Your task to perform on an android device: toggle notification dots Image 0: 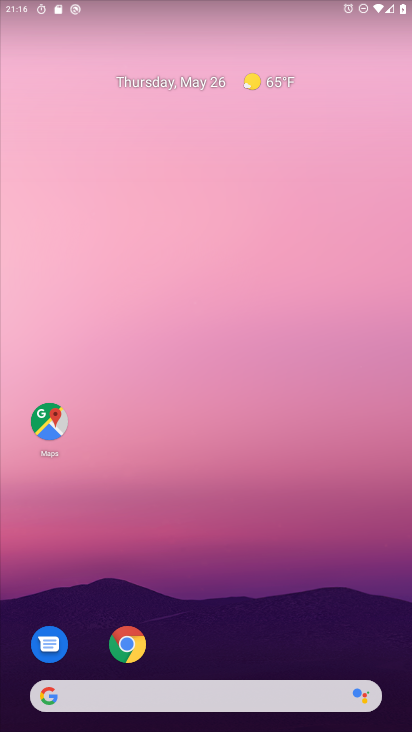
Step 0: drag from (195, 643) to (242, 51)
Your task to perform on an android device: toggle notification dots Image 1: 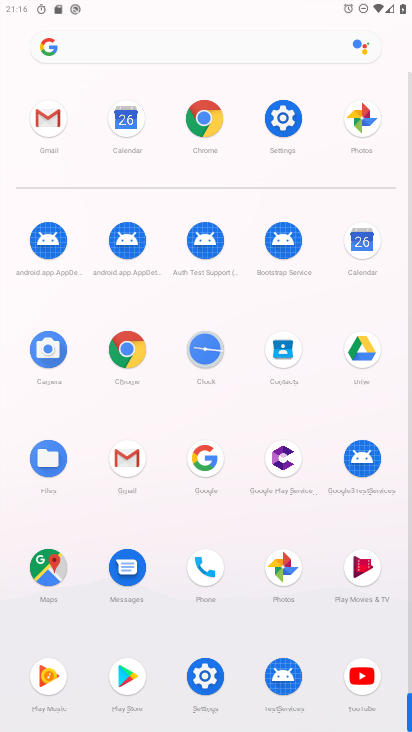
Step 1: click (285, 119)
Your task to perform on an android device: toggle notification dots Image 2: 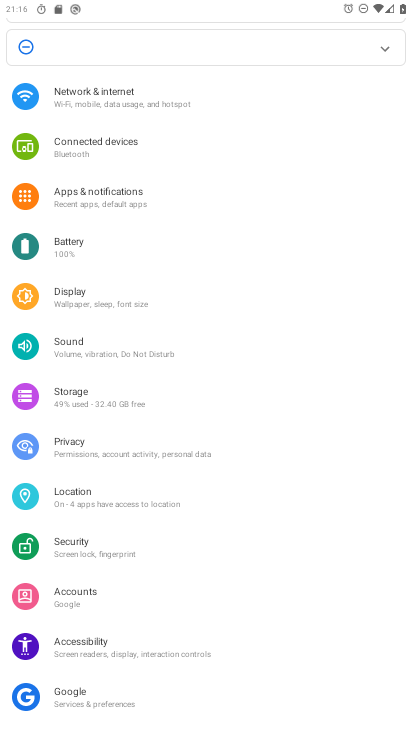
Step 2: drag from (183, 640) to (320, 156)
Your task to perform on an android device: toggle notification dots Image 3: 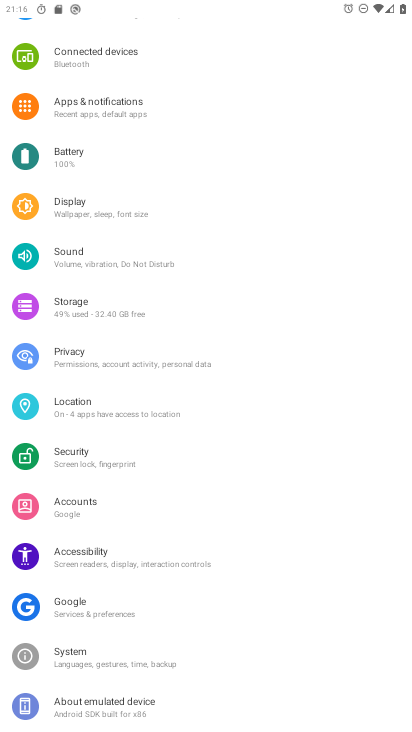
Step 3: click (116, 102)
Your task to perform on an android device: toggle notification dots Image 4: 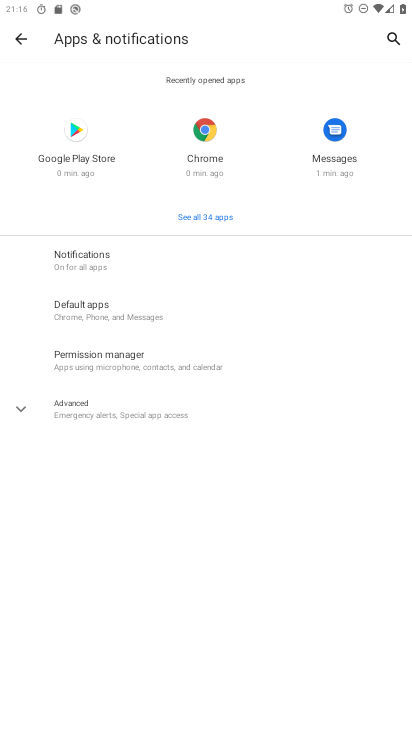
Step 4: click (119, 265)
Your task to perform on an android device: toggle notification dots Image 5: 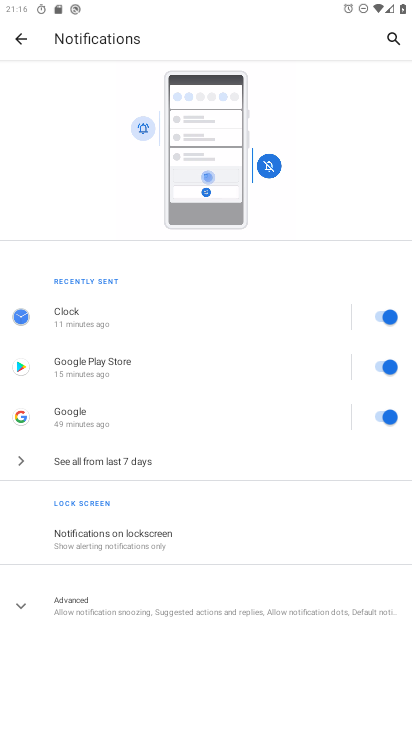
Step 5: click (166, 603)
Your task to perform on an android device: toggle notification dots Image 6: 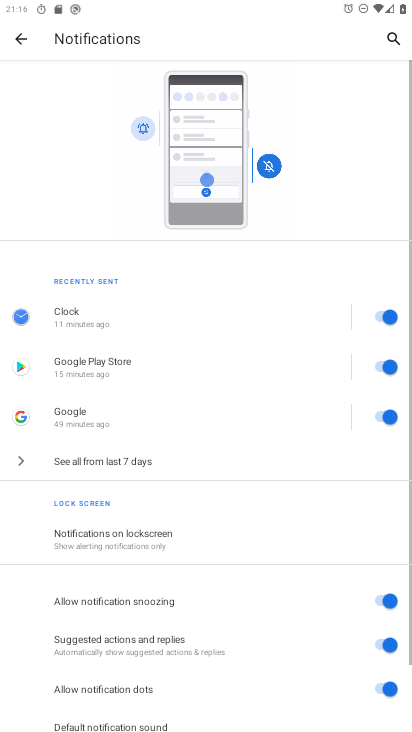
Step 6: drag from (183, 586) to (246, 116)
Your task to perform on an android device: toggle notification dots Image 7: 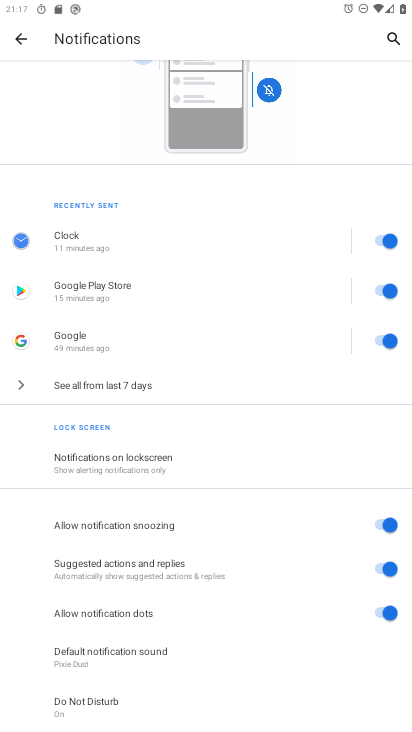
Step 7: click (383, 607)
Your task to perform on an android device: toggle notification dots Image 8: 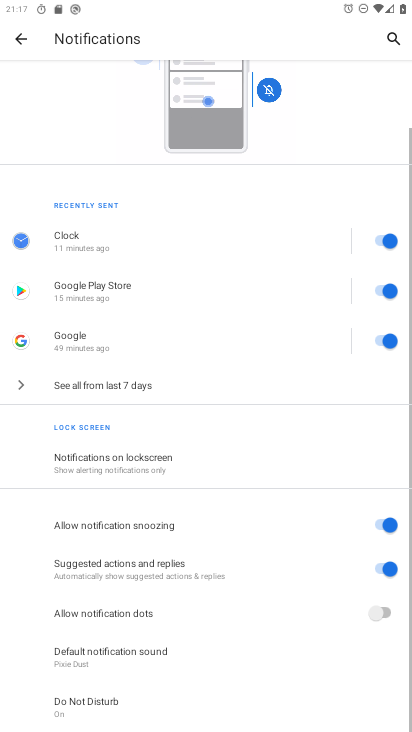
Step 8: task complete